Your task to perform on an android device: open wifi settings Image 0: 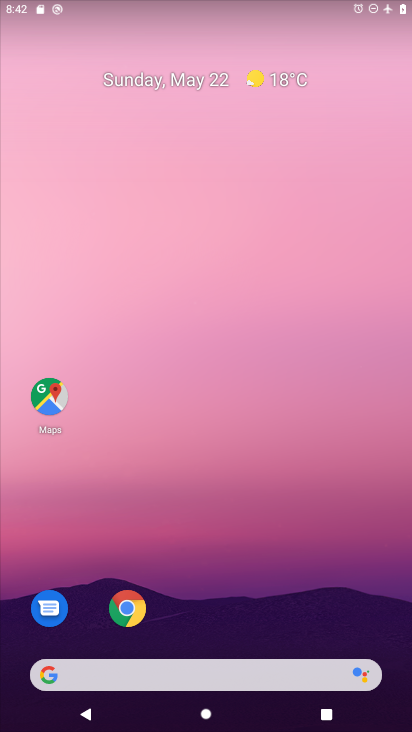
Step 0: drag from (225, 727) to (188, 100)
Your task to perform on an android device: open wifi settings Image 1: 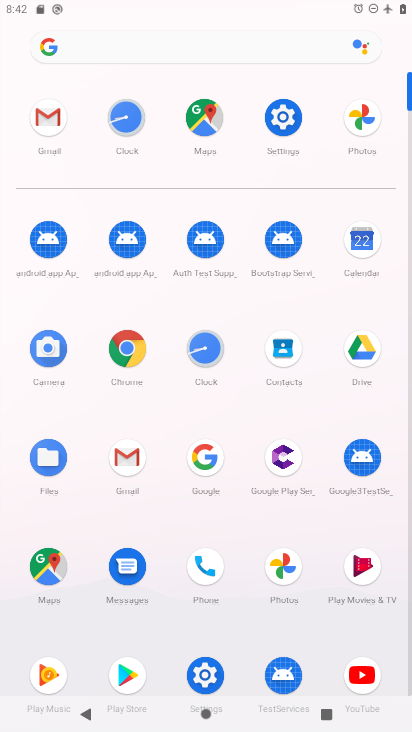
Step 1: click (283, 111)
Your task to perform on an android device: open wifi settings Image 2: 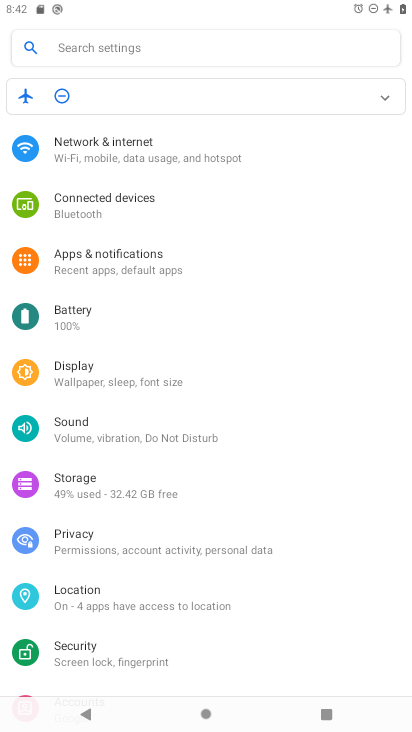
Step 2: click (113, 151)
Your task to perform on an android device: open wifi settings Image 3: 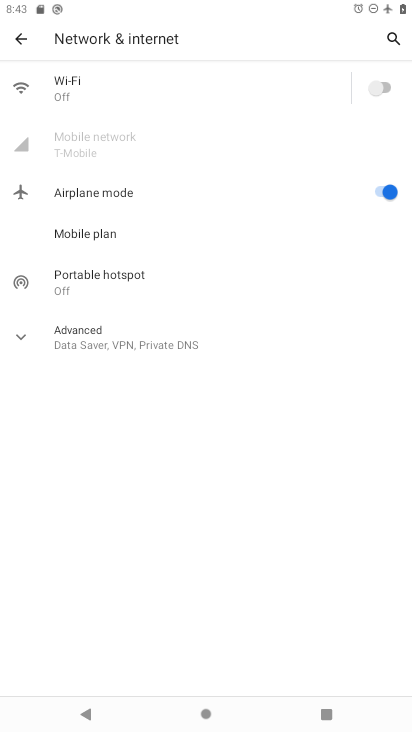
Step 3: click (67, 80)
Your task to perform on an android device: open wifi settings Image 4: 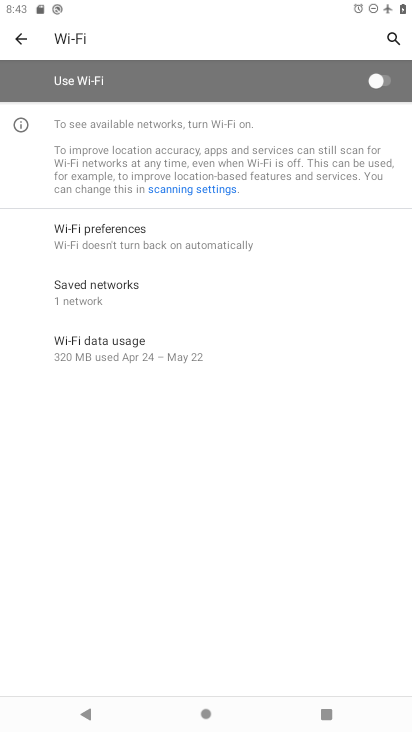
Step 4: task complete